Your task to perform on an android device: clear history in the chrome app Image 0: 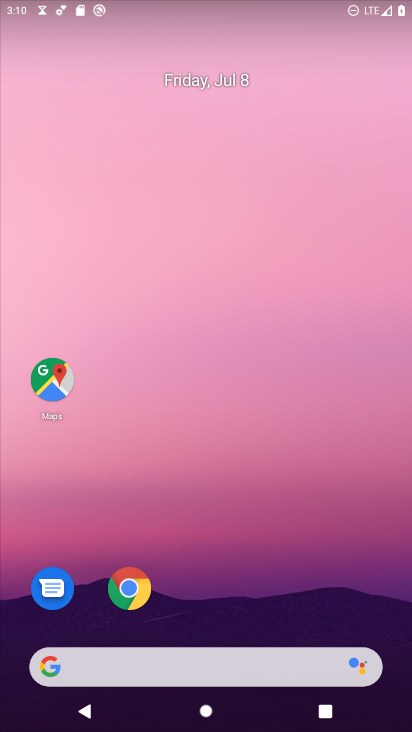
Step 0: click (136, 586)
Your task to perform on an android device: clear history in the chrome app Image 1: 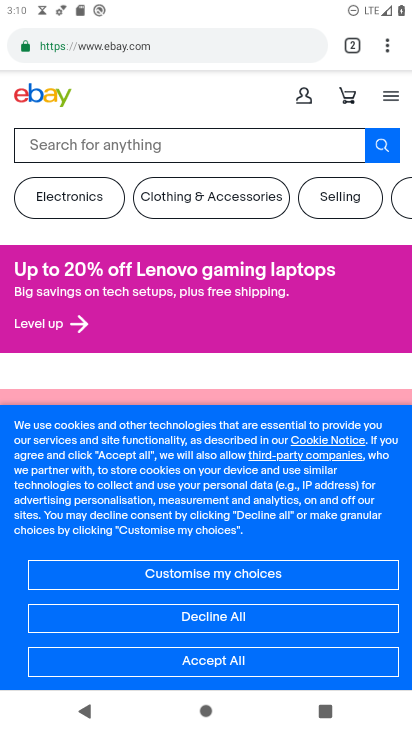
Step 1: click (388, 50)
Your task to perform on an android device: clear history in the chrome app Image 2: 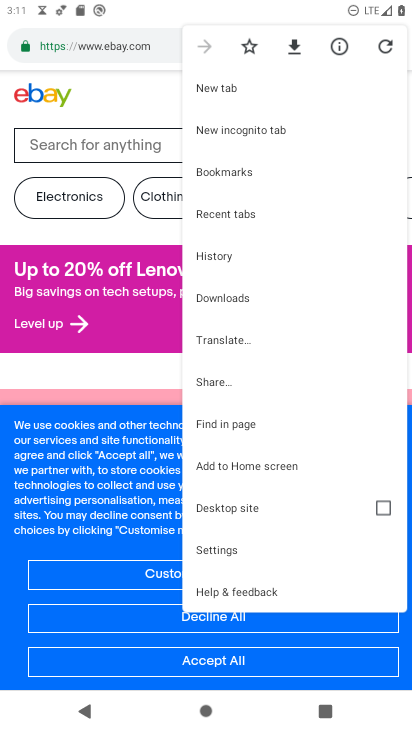
Step 2: click (219, 254)
Your task to perform on an android device: clear history in the chrome app Image 3: 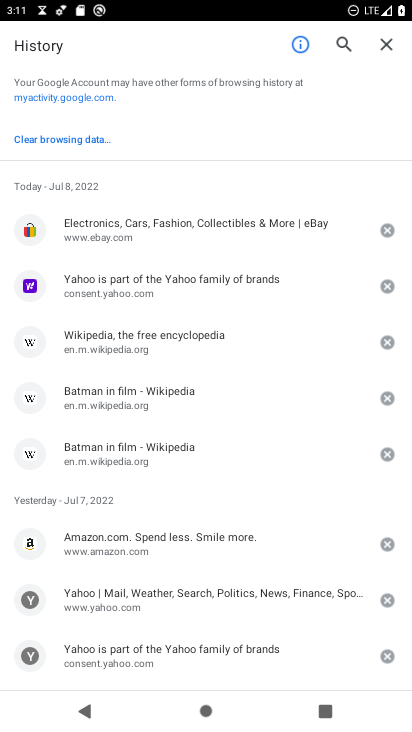
Step 3: click (80, 142)
Your task to perform on an android device: clear history in the chrome app Image 4: 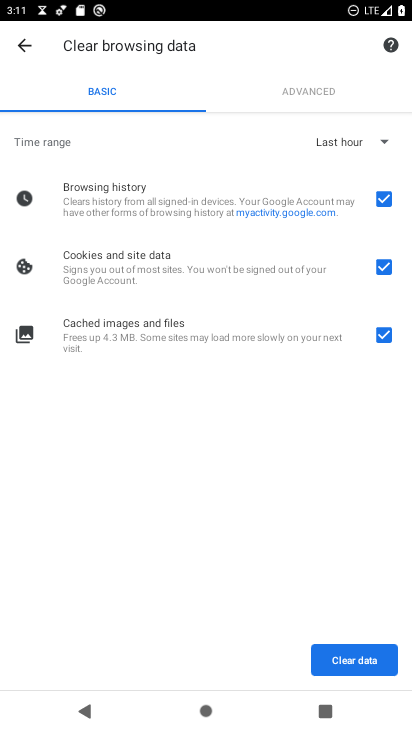
Step 4: click (348, 657)
Your task to perform on an android device: clear history in the chrome app Image 5: 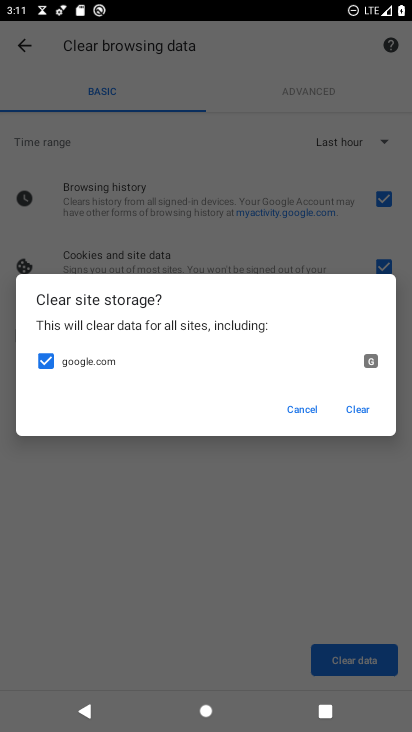
Step 5: click (359, 408)
Your task to perform on an android device: clear history in the chrome app Image 6: 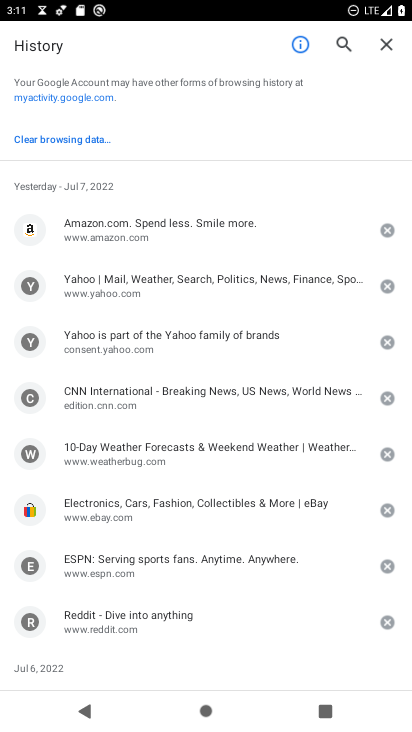
Step 6: task complete